Your task to perform on an android device: change timer sound Image 0: 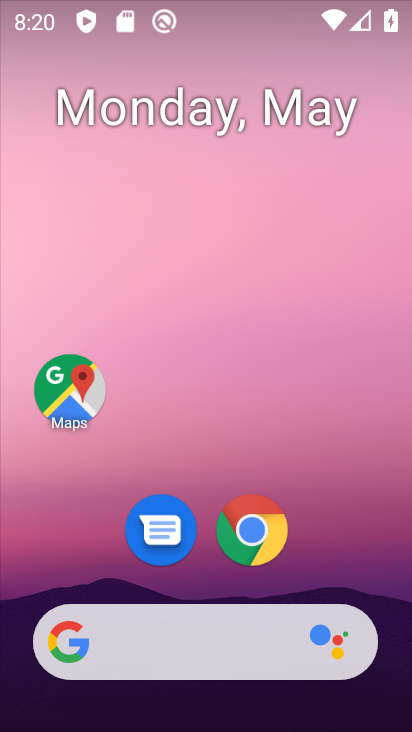
Step 0: drag from (395, 609) to (303, 149)
Your task to perform on an android device: change timer sound Image 1: 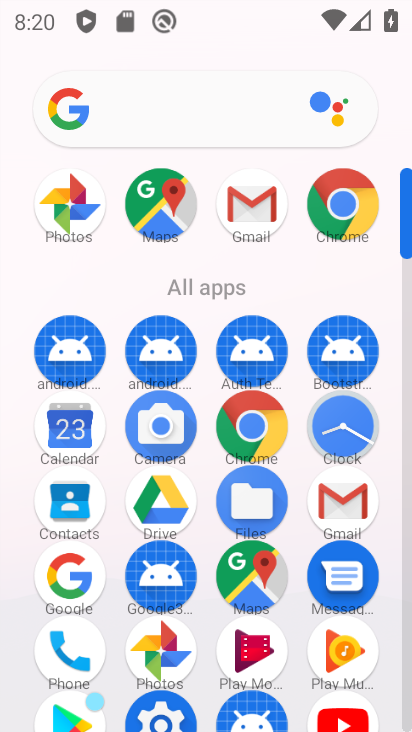
Step 1: click (345, 427)
Your task to perform on an android device: change timer sound Image 2: 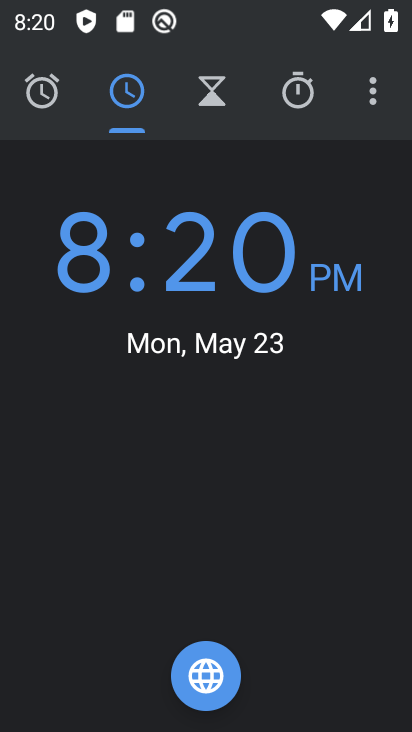
Step 2: click (377, 90)
Your task to perform on an android device: change timer sound Image 3: 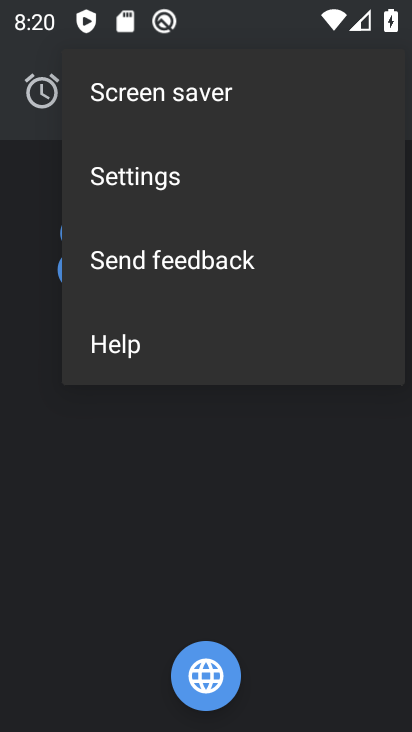
Step 3: click (329, 177)
Your task to perform on an android device: change timer sound Image 4: 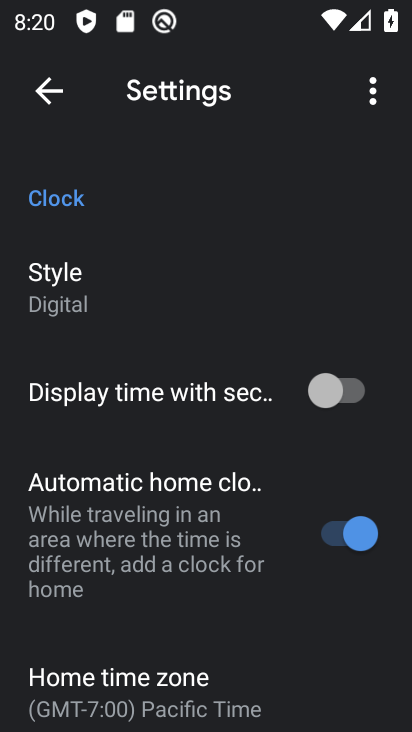
Step 4: drag from (271, 651) to (219, 314)
Your task to perform on an android device: change timer sound Image 5: 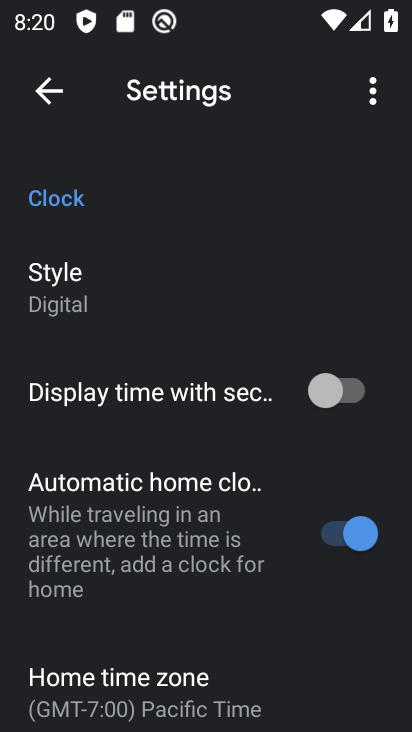
Step 5: drag from (205, 617) to (174, 159)
Your task to perform on an android device: change timer sound Image 6: 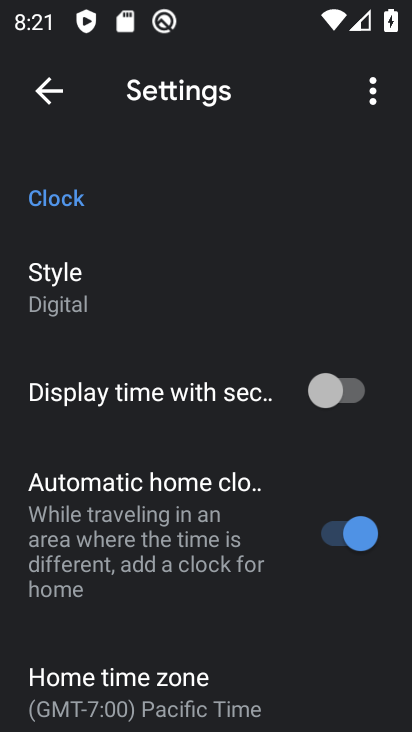
Step 6: drag from (184, 637) to (141, 240)
Your task to perform on an android device: change timer sound Image 7: 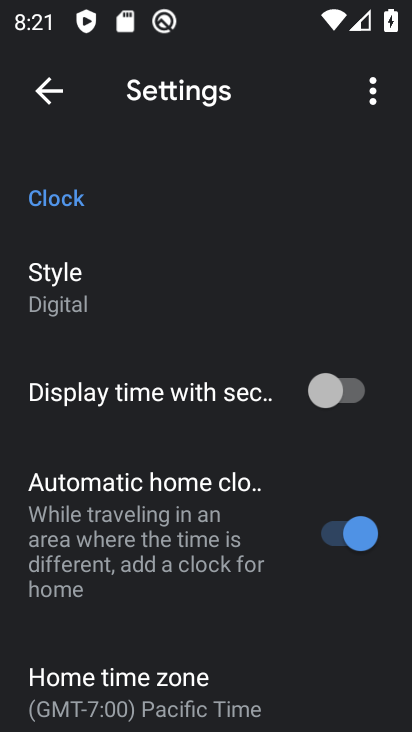
Step 7: drag from (180, 618) to (142, 29)
Your task to perform on an android device: change timer sound Image 8: 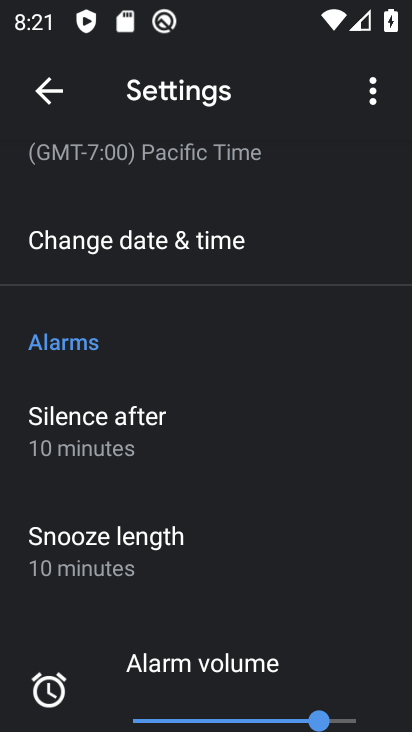
Step 8: drag from (202, 609) to (172, 176)
Your task to perform on an android device: change timer sound Image 9: 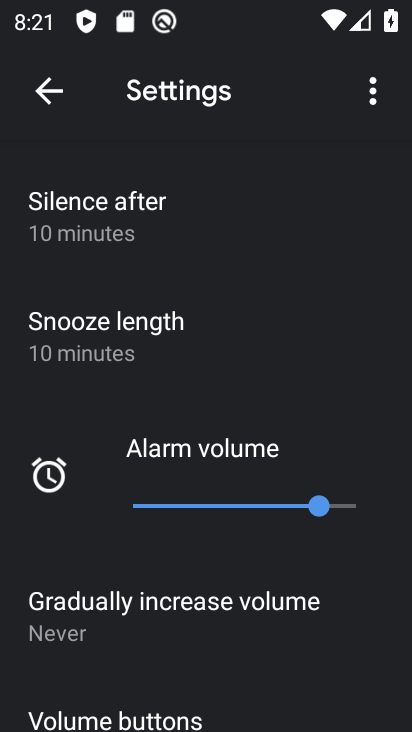
Step 9: drag from (189, 676) to (167, 321)
Your task to perform on an android device: change timer sound Image 10: 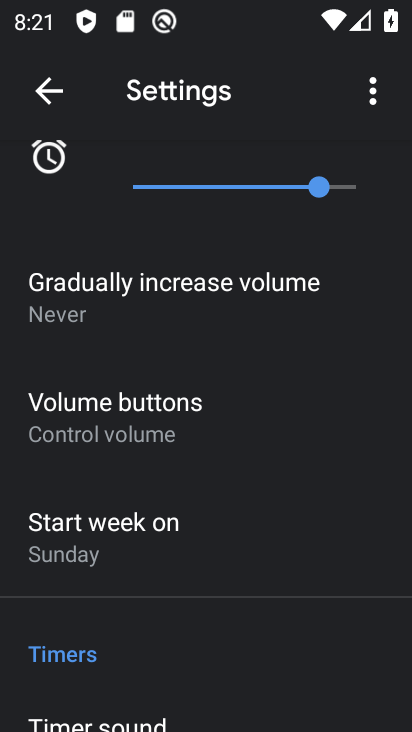
Step 10: drag from (170, 618) to (160, 245)
Your task to perform on an android device: change timer sound Image 11: 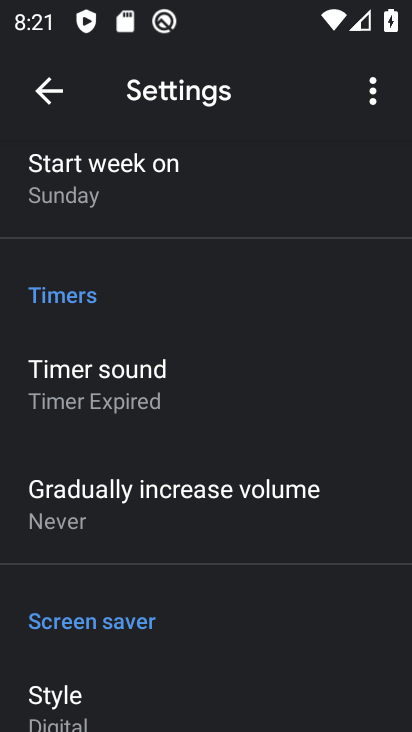
Step 11: click (162, 369)
Your task to perform on an android device: change timer sound Image 12: 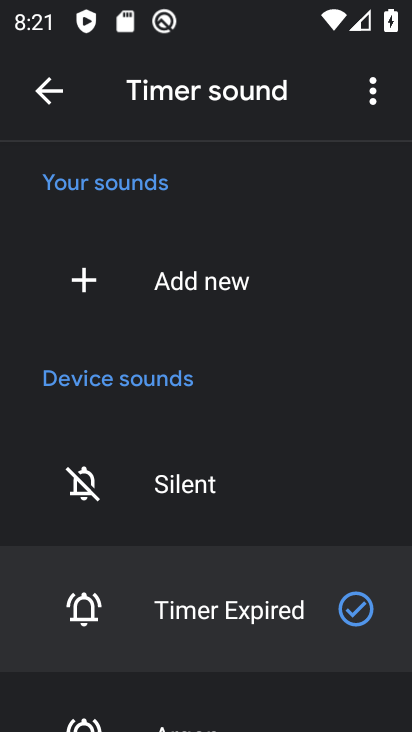
Step 12: drag from (230, 575) to (207, 257)
Your task to perform on an android device: change timer sound Image 13: 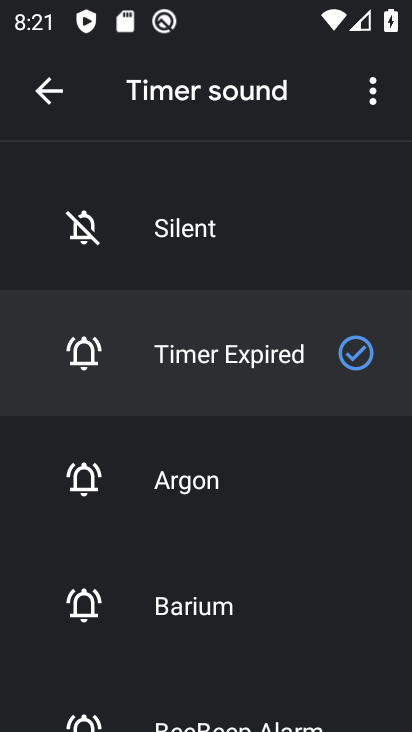
Step 13: click (186, 594)
Your task to perform on an android device: change timer sound Image 14: 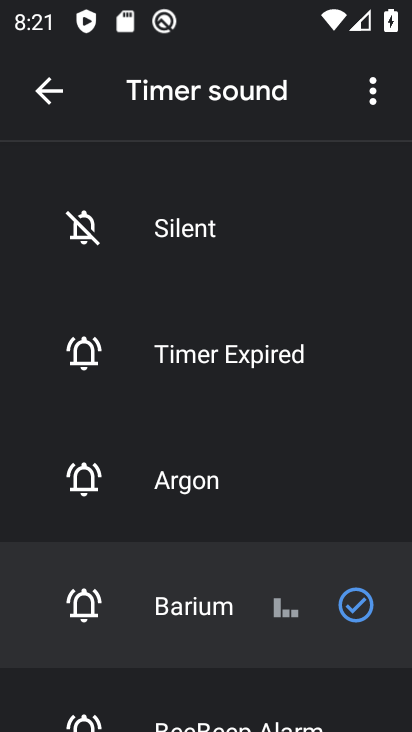
Step 14: task complete